Your task to perform on an android device: Go to notification settings Image 0: 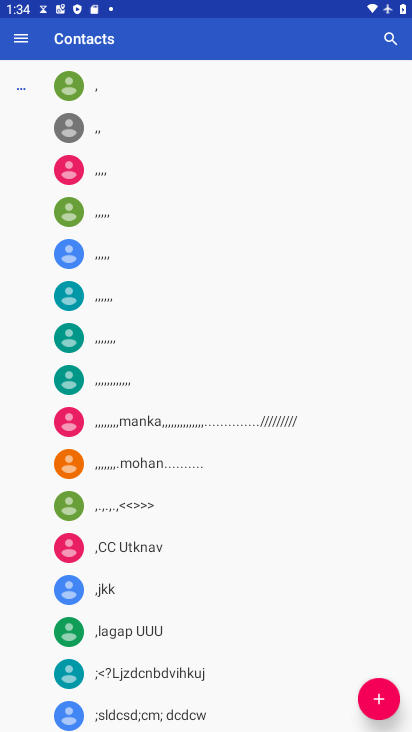
Step 0: press home button
Your task to perform on an android device: Go to notification settings Image 1: 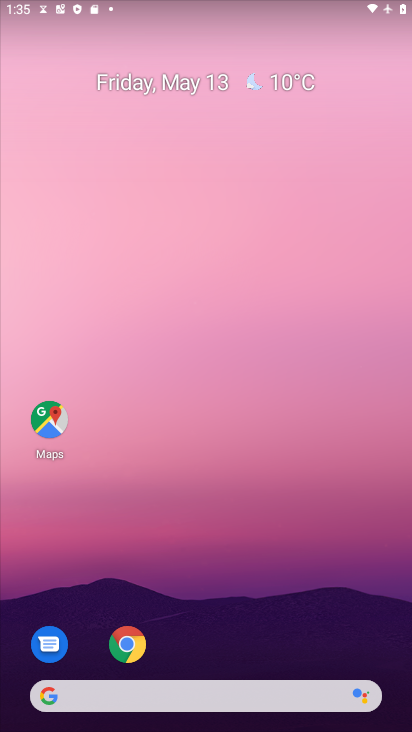
Step 1: drag from (218, 723) to (230, 194)
Your task to perform on an android device: Go to notification settings Image 2: 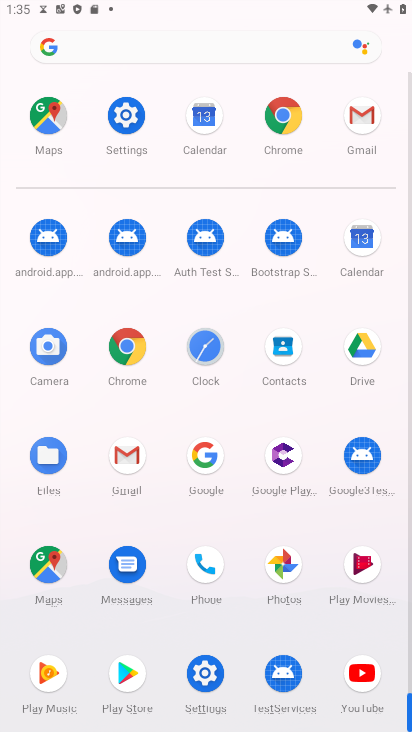
Step 2: click (124, 117)
Your task to perform on an android device: Go to notification settings Image 3: 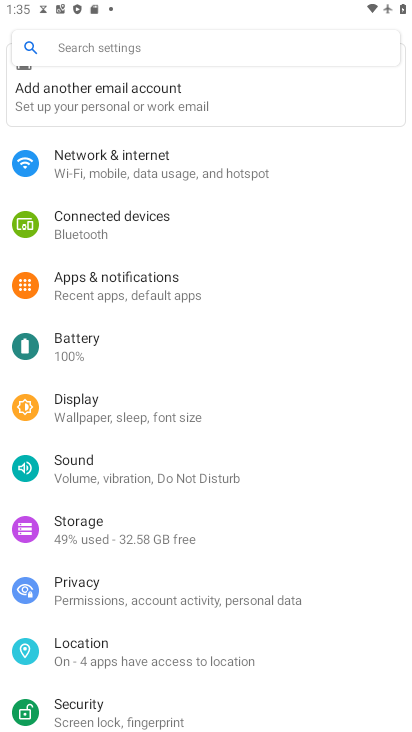
Step 3: click (120, 279)
Your task to perform on an android device: Go to notification settings Image 4: 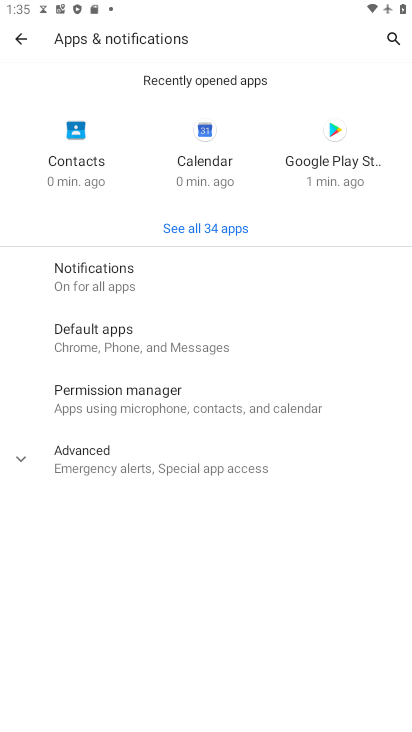
Step 4: click (92, 281)
Your task to perform on an android device: Go to notification settings Image 5: 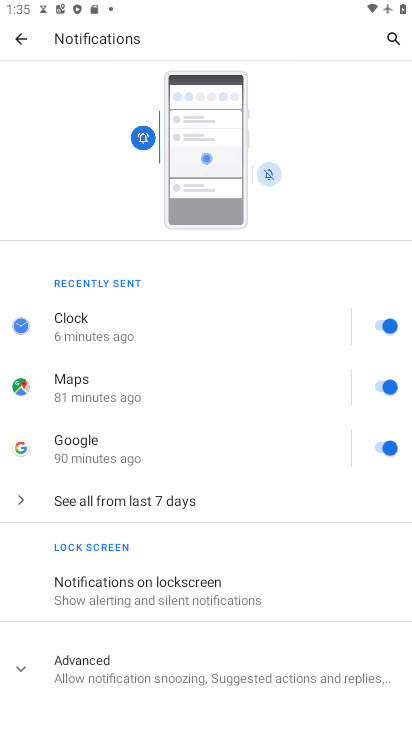
Step 5: task complete